Your task to perform on an android device: turn off location Image 0: 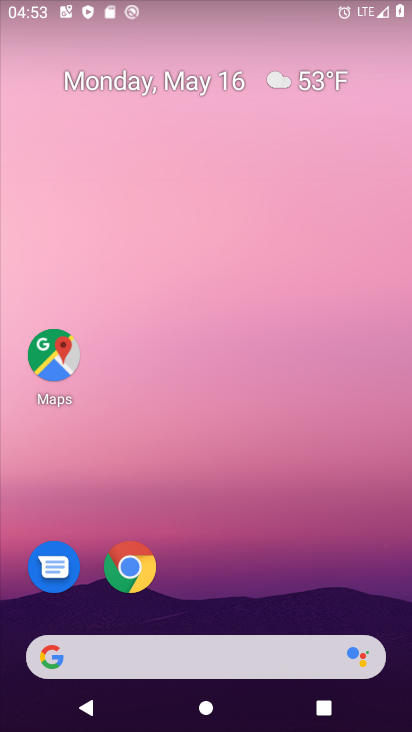
Step 0: drag from (330, 679) to (313, 47)
Your task to perform on an android device: turn off location Image 1: 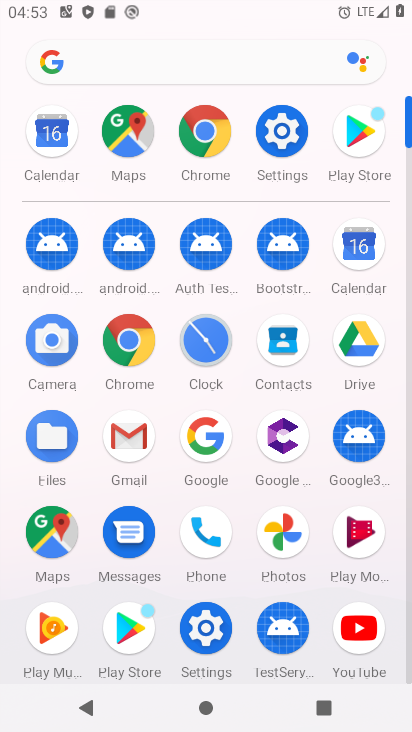
Step 1: click (305, 131)
Your task to perform on an android device: turn off location Image 2: 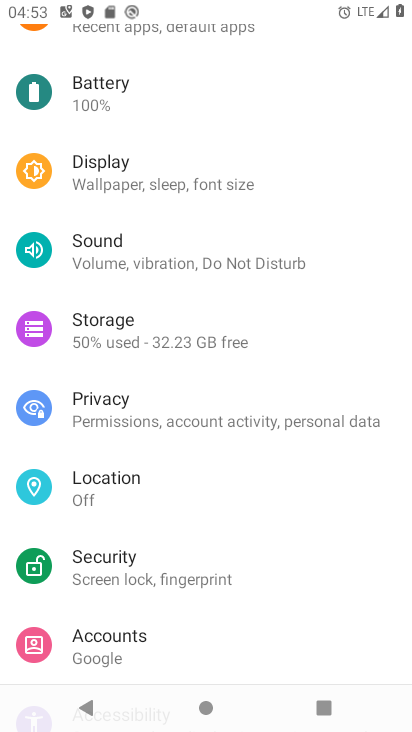
Step 2: drag from (184, 176) to (207, 45)
Your task to perform on an android device: turn off location Image 3: 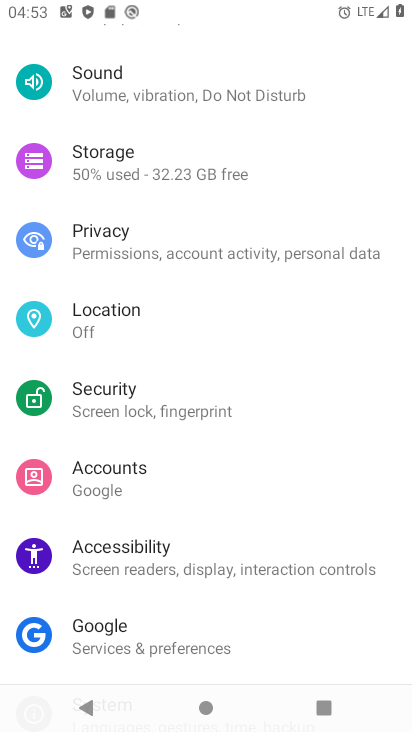
Step 3: click (125, 336)
Your task to perform on an android device: turn off location Image 4: 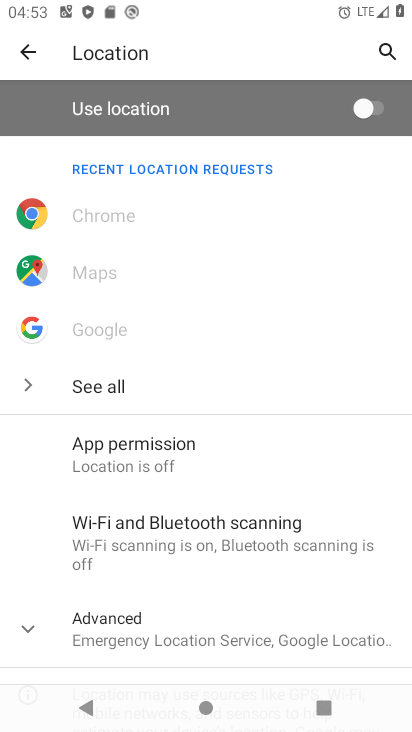
Step 4: task complete